Your task to perform on an android device: Go to eBay Image 0: 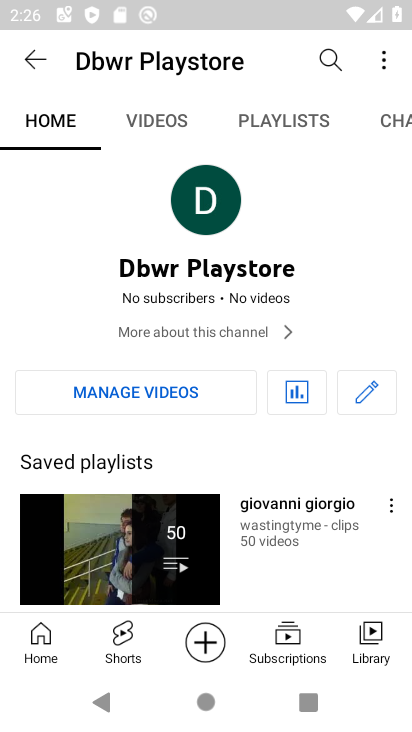
Step 0: press home button
Your task to perform on an android device: Go to eBay Image 1: 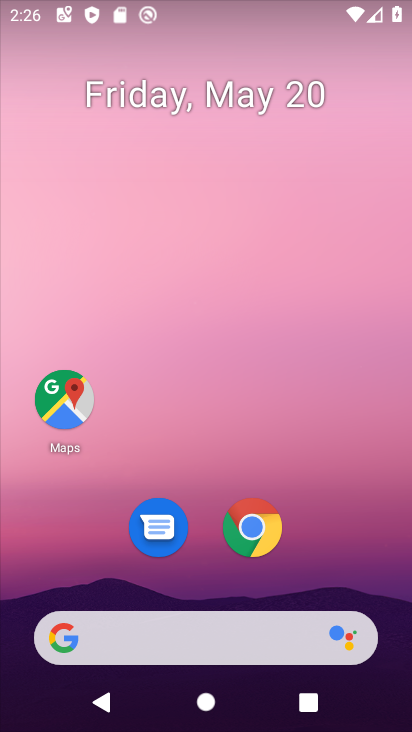
Step 1: click (286, 627)
Your task to perform on an android device: Go to eBay Image 2: 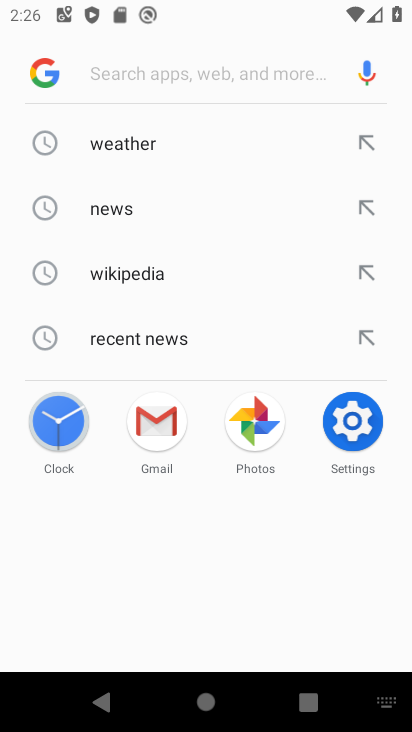
Step 2: type "ebay.com"
Your task to perform on an android device: Go to eBay Image 3: 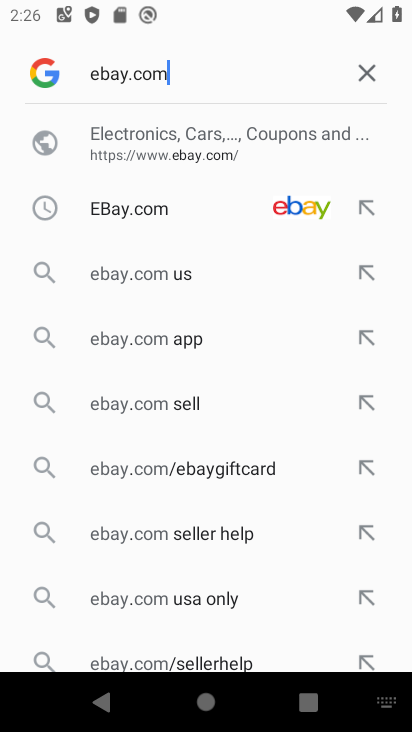
Step 3: click (252, 147)
Your task to perform on an android device: Go to eBay Image 4: 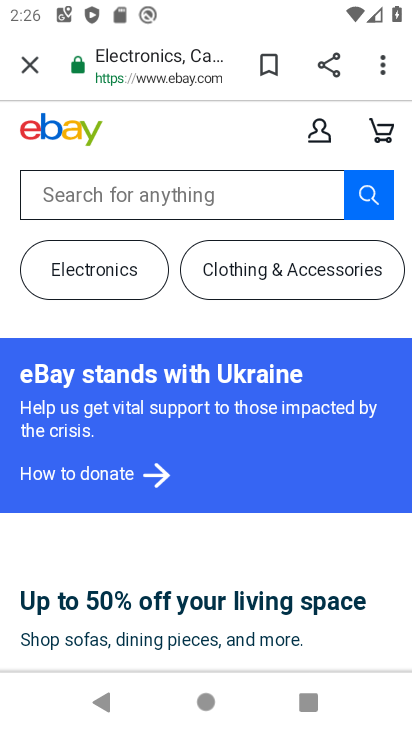
Step 4: task complete